Your task to perform on an android device: Open Google Maps Image 0: 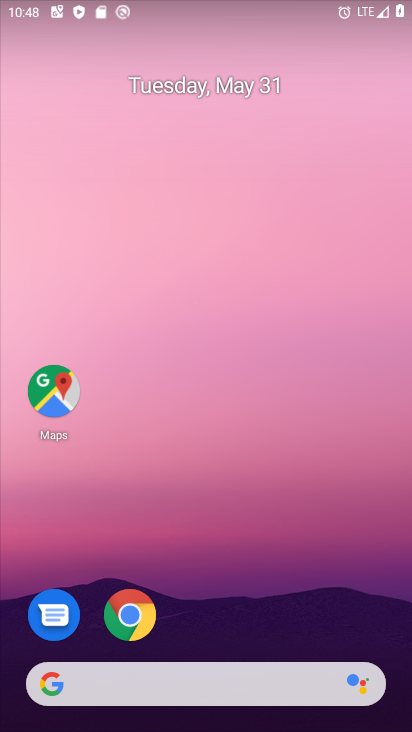
Step 0: drag from (295, 461) to (331, 0)
Your task to perform on an android device: Open Google Maps Image 1: 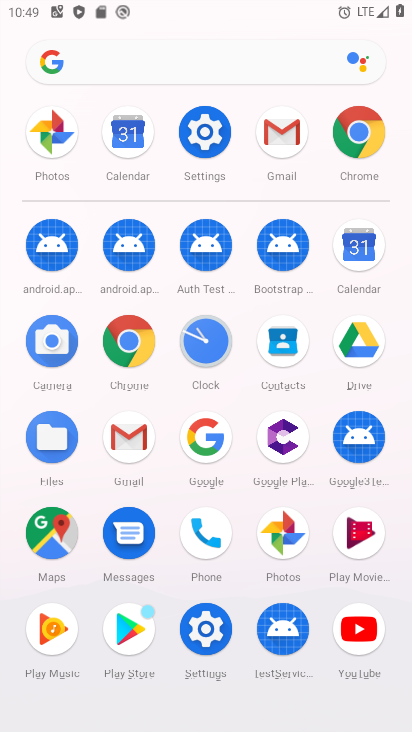
Step 1: click (54, 537)
Your task to perform on an android device: Open Google Maps Image 2: 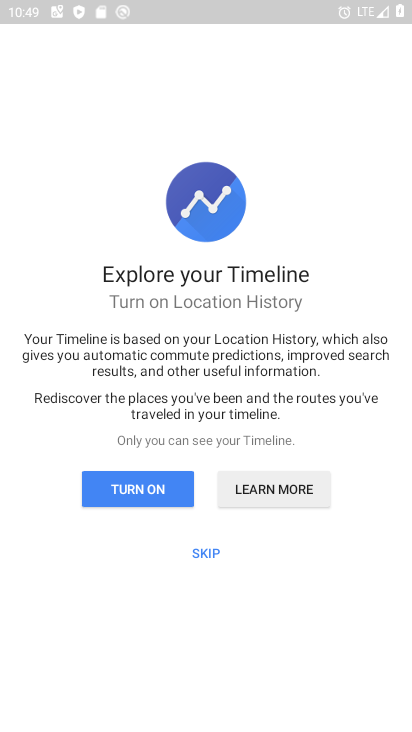
Step 2: click (202, 558)
Your task to perform on an android device: Open Google Maps Image 3: 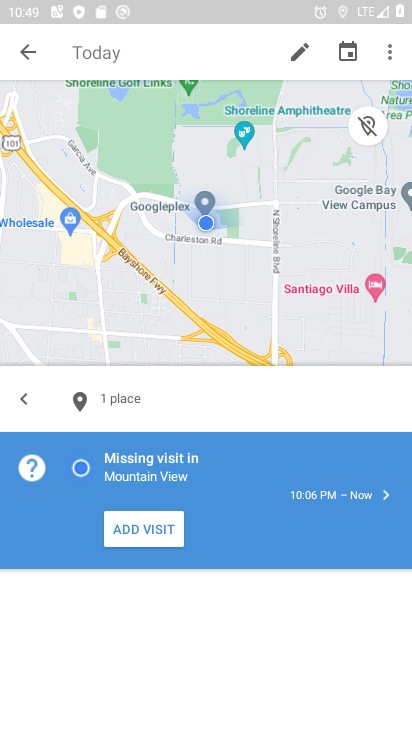
Step 3: task complete